Your task to perform on an android device: Set an alarm for 11am Image 0: 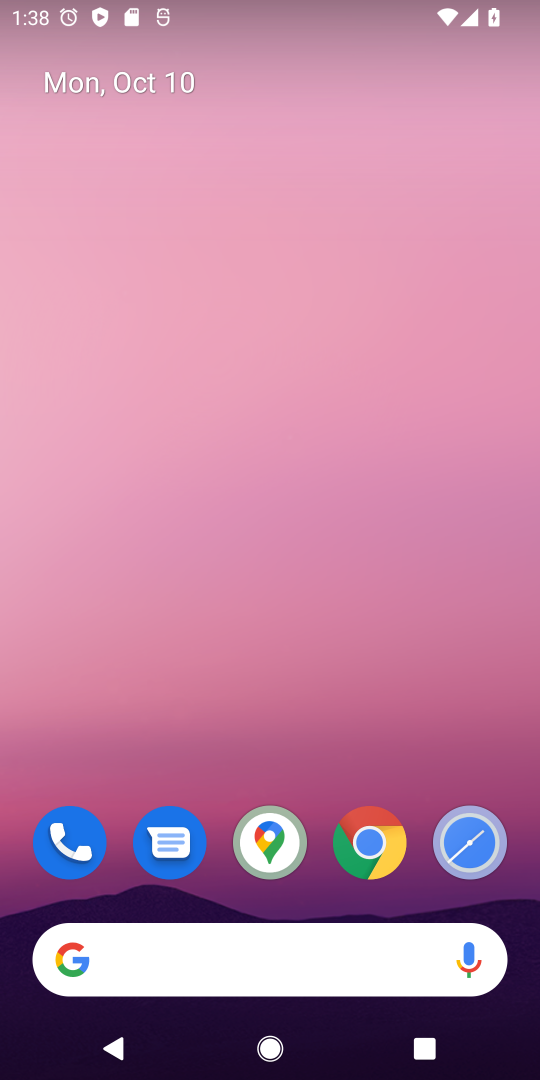
Step 0: drag from (420, 711) to (415, 321)
Your task to perform on an android device: Set an alarm for 11am Image 1: 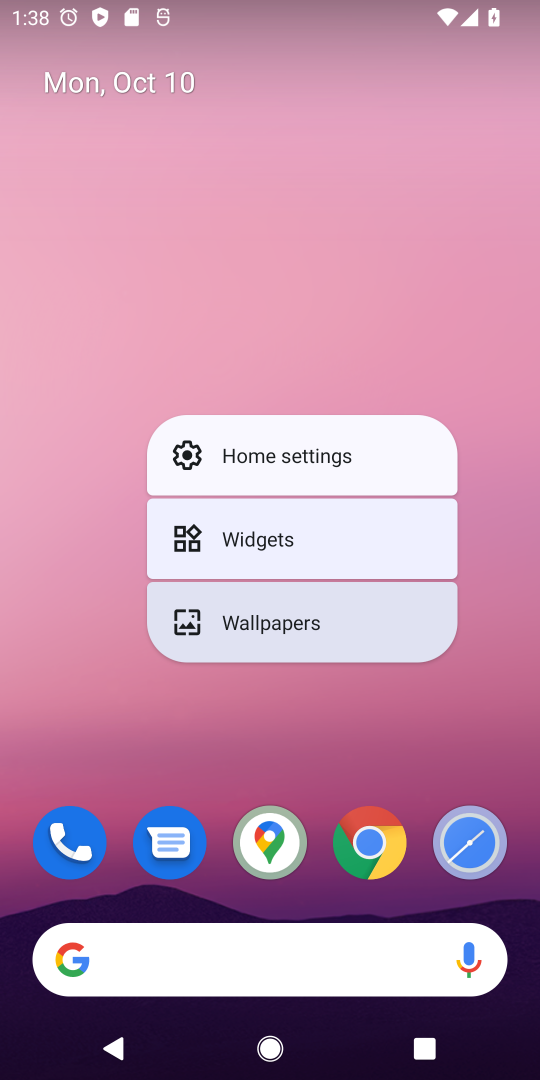
Step 1: click (448, 362)
Your task to perform on an android device: Set an alarm for 11am Image 2: 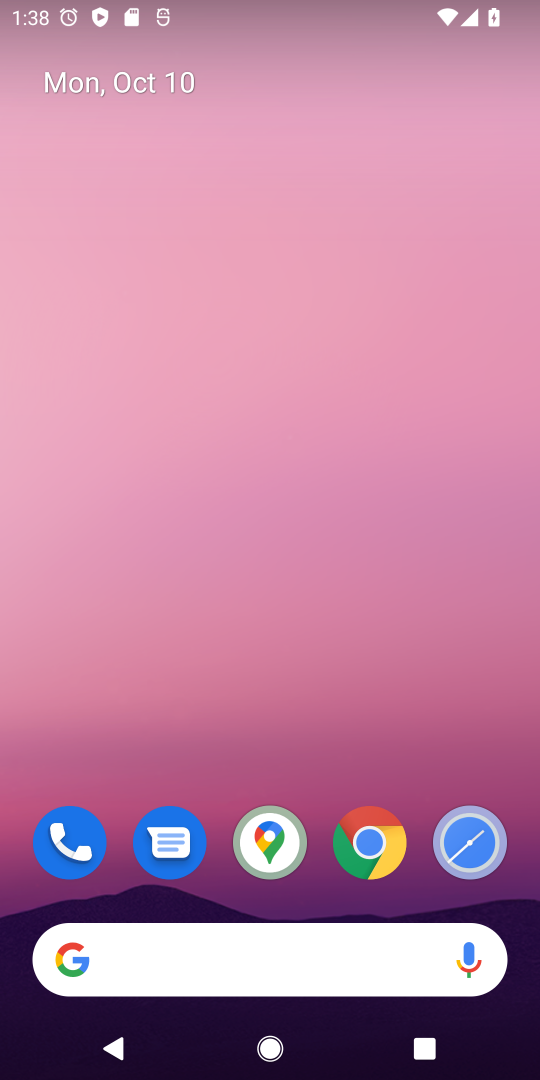
Step 2: drag from (334, 817) to (364, 254)
Your task to perform on an android device: Set an alarm for 11am Image 3: 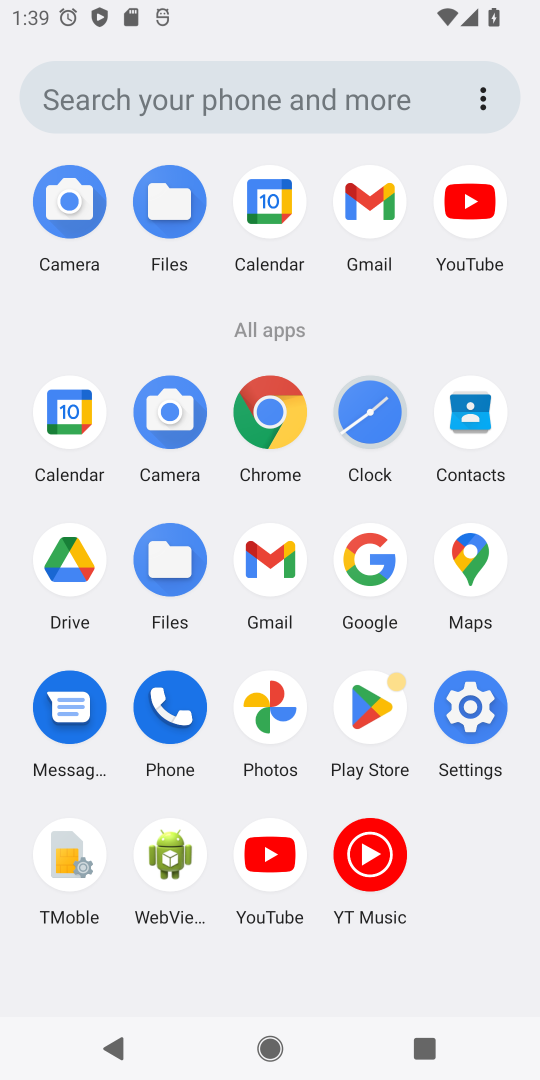
Step 3: click (384, 415)
Your task to perform on an android device: Set an alarm for 11am Image 4: 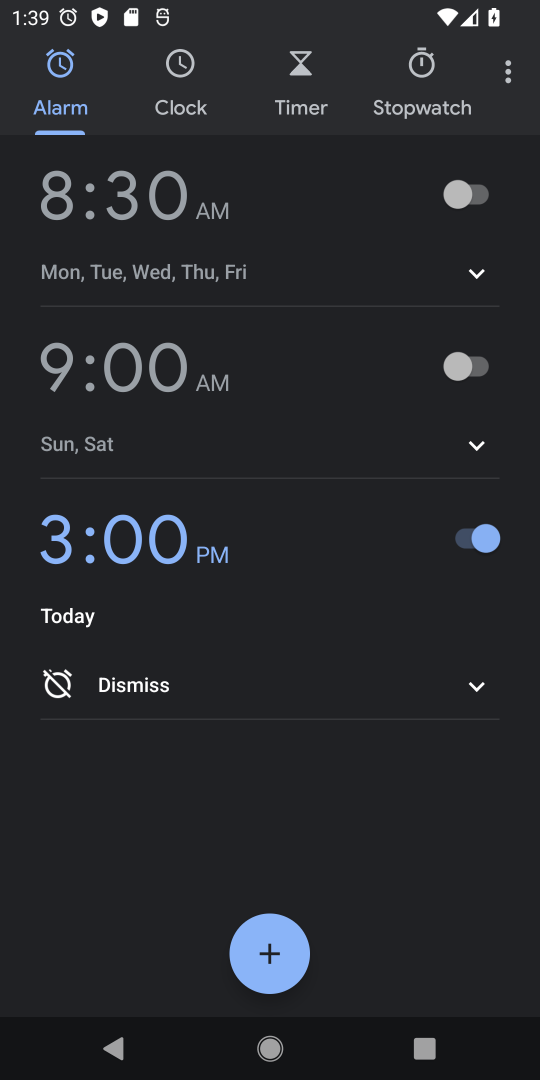
Step 4: click (252, 954)
Your task to perform on an android device: Set an alarm for 11am Image 5: 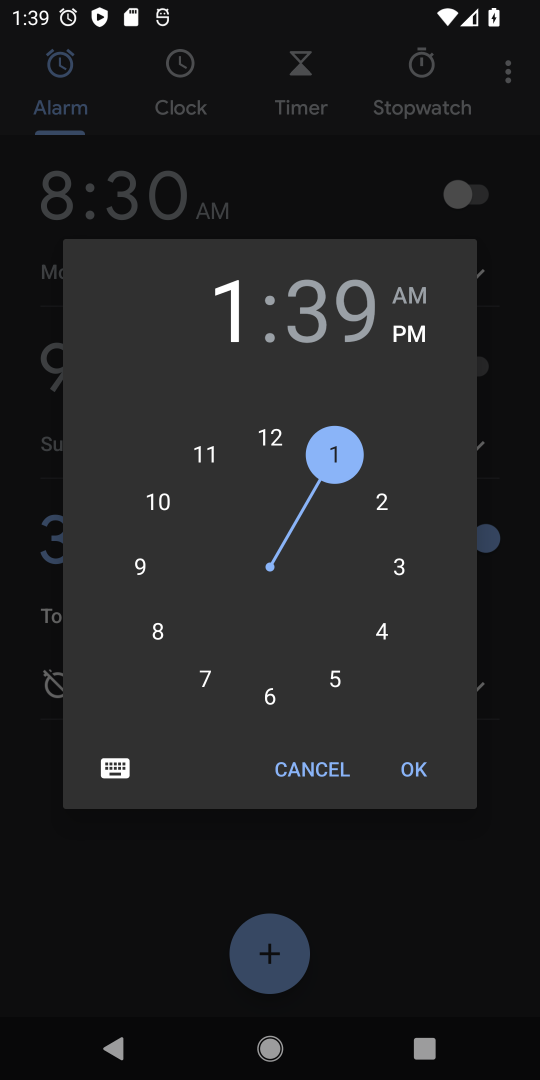
Step 5: click (210, 461)
Your task to perform on an android device: Set an alarm for 11am Image 6: 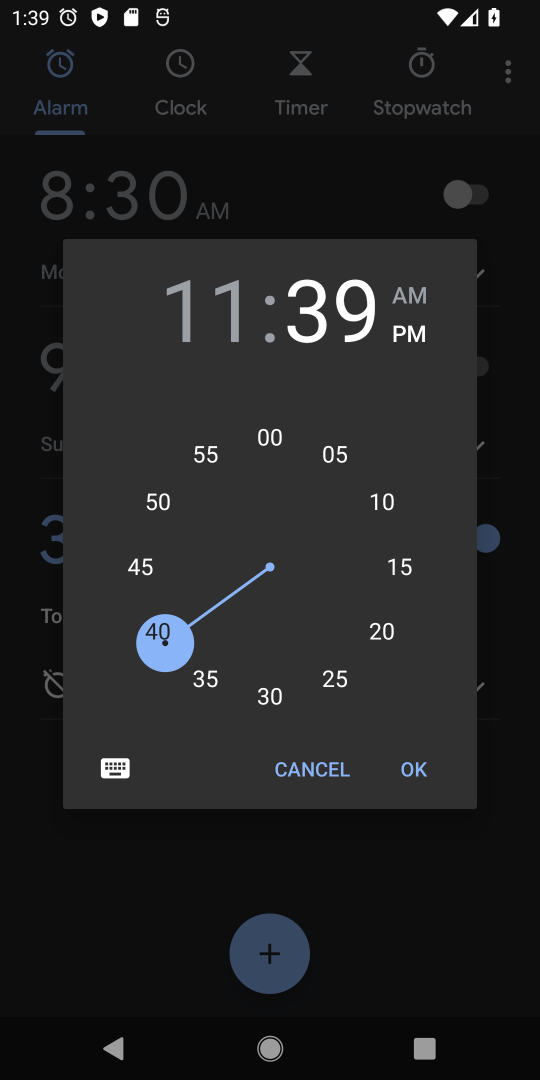
Step 6: click (135, 539)
Your task to perform on an android device: Set an alarm for 11am Image 7: 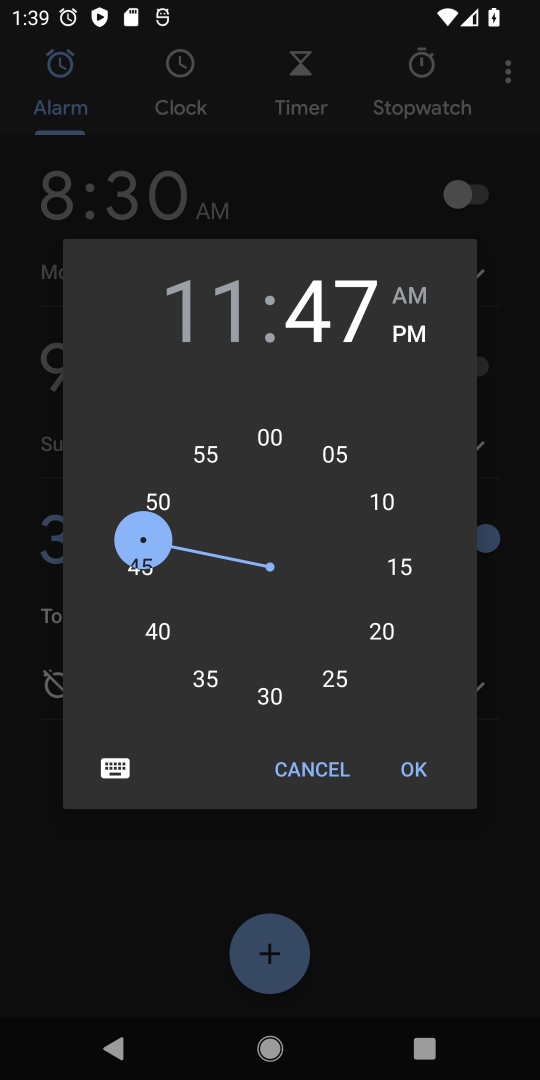
Step 7: click (135, 539)
Your task to perform on an android device: Set an alarm for 11am Image 8: 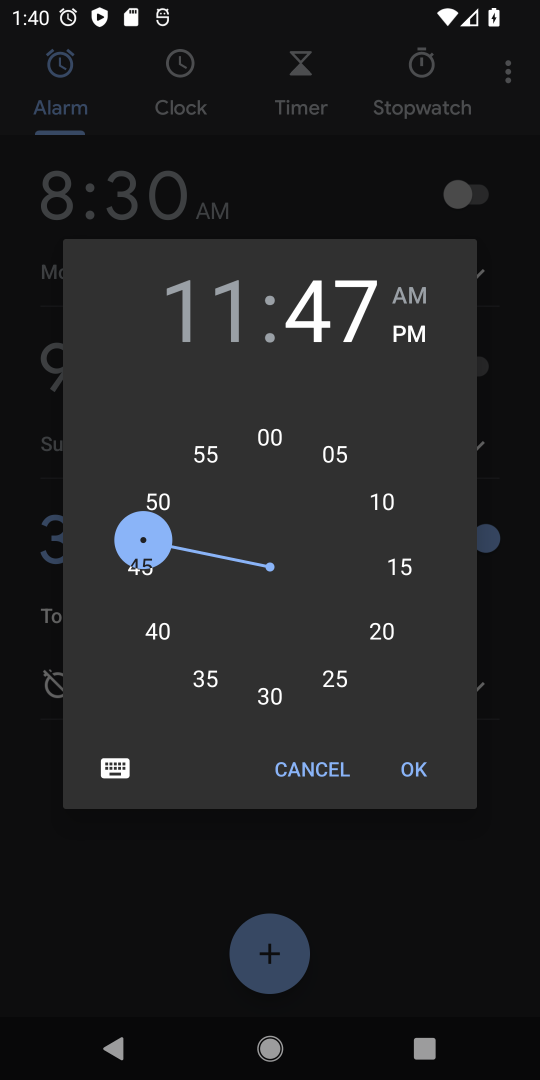
Step 8: click (157, 503)
Your task to perform on an android device: Set an alarm for 11am Image 9: 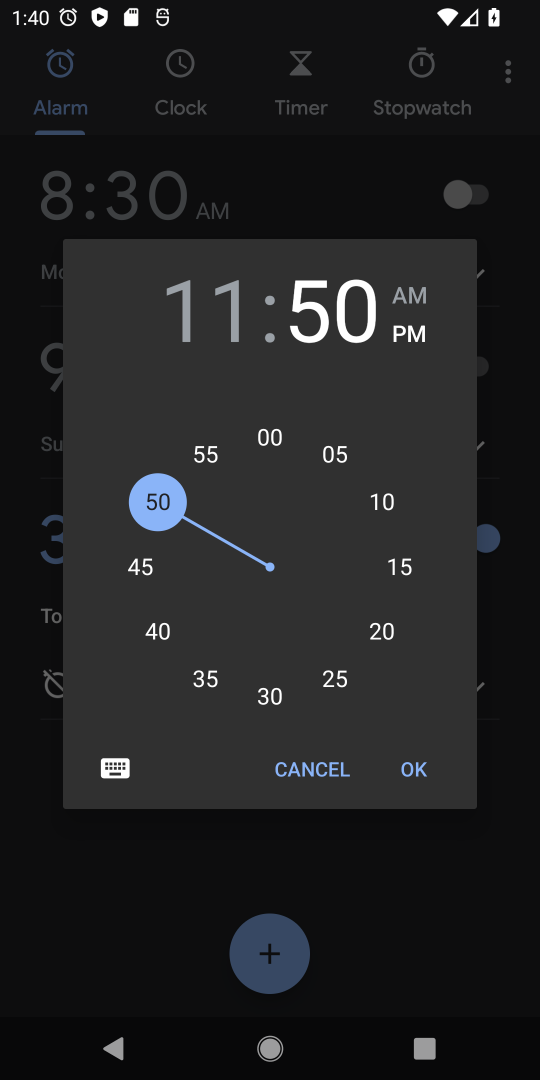
Step 9: click (177, 469)
Your task to perform on an android device: Set an alarm for 11am Image 10: 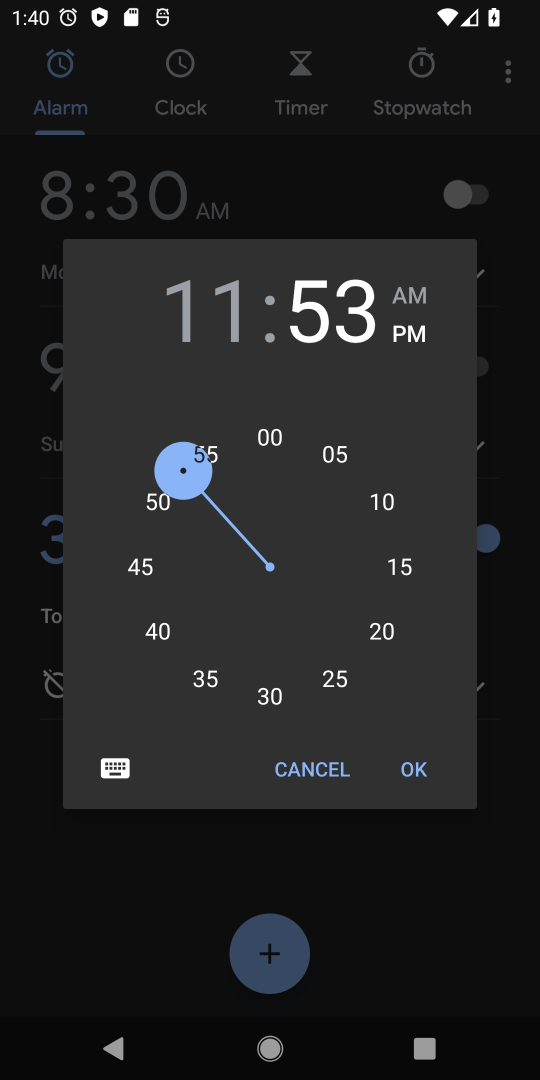
Step 10: click (198, 447)
Your task to perform on an android device: Set an alarm for 11am Image 11: 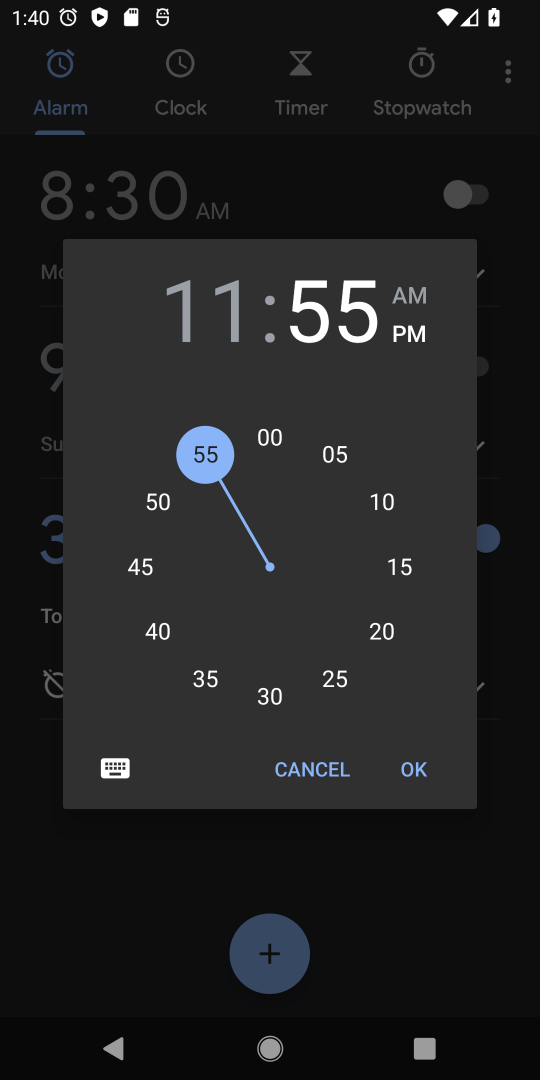
Step 11: click (261, 435)
Your task to perform on an android device: Set an alarm for 11am Image 12: 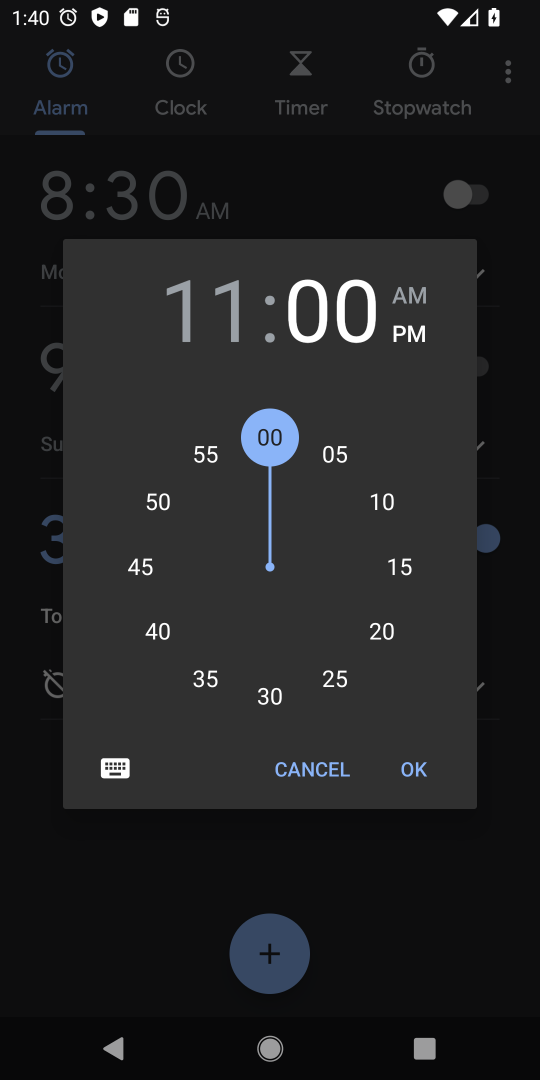
Step 12: click (407, 298)
Your task to perform on an android device: Set an alarm for 11am Image 13: 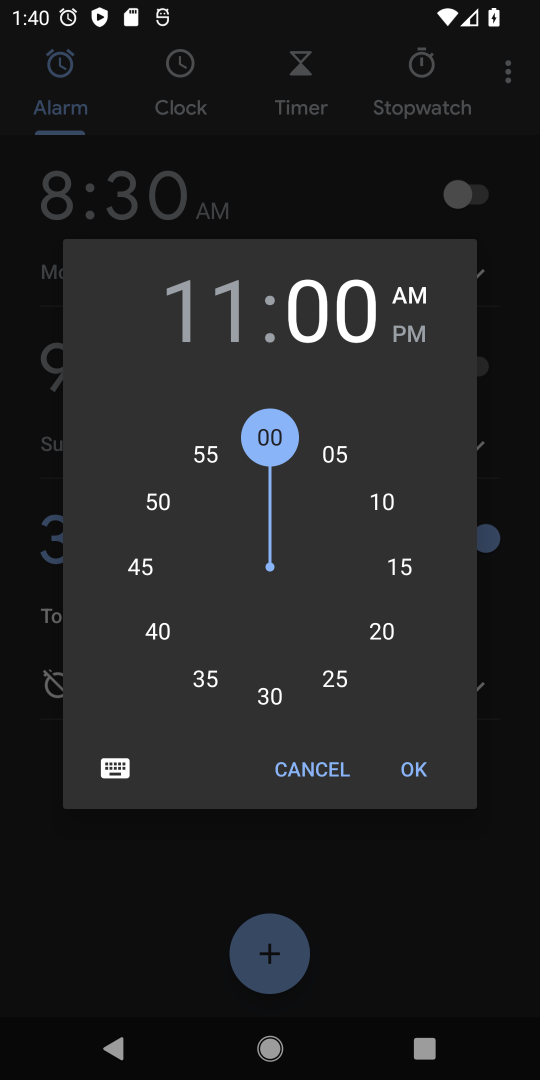
Step 13: task complete